Your task to perform on an android device: Go to settings Image 0: 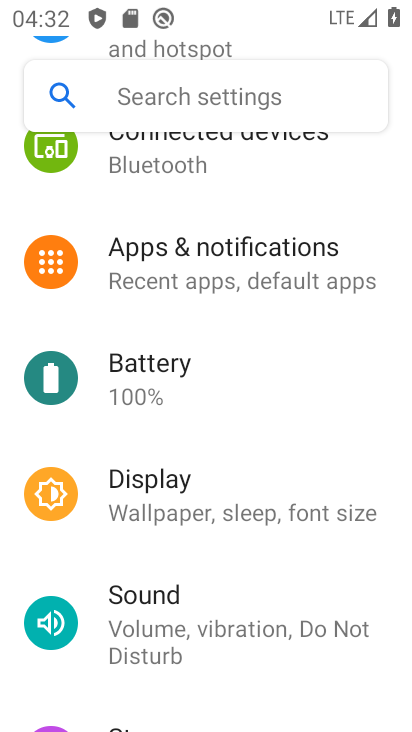
Step 0: task complete